Your task to perform on an android device: Open ESPN.com Image 0: 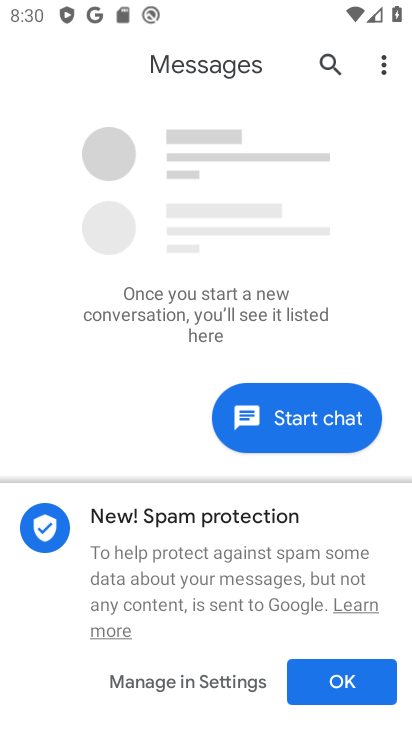
Step 0: press home button
Your task to perform on an android device: Open ESPN.com Image 1: 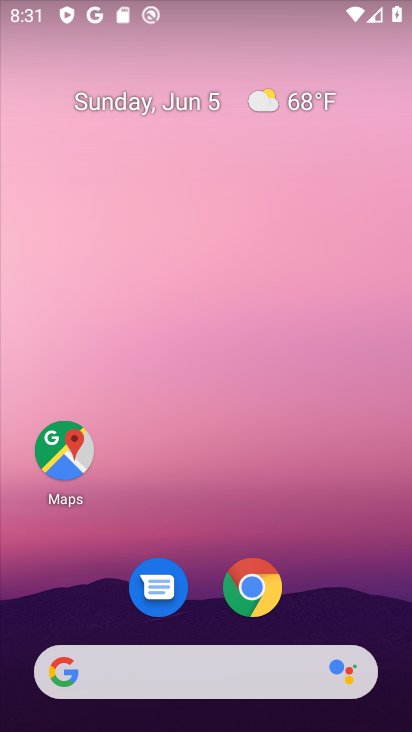
Step 1: click (257, 575)
Your task to perform on an android device: Open ESPN.com Image 2: 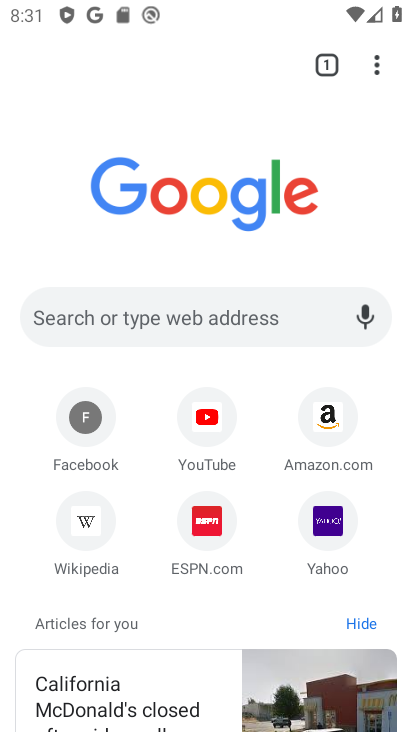
Step 2: click (247, 315)
Your task to perform on an android device: Open ESPN.com Image 3: 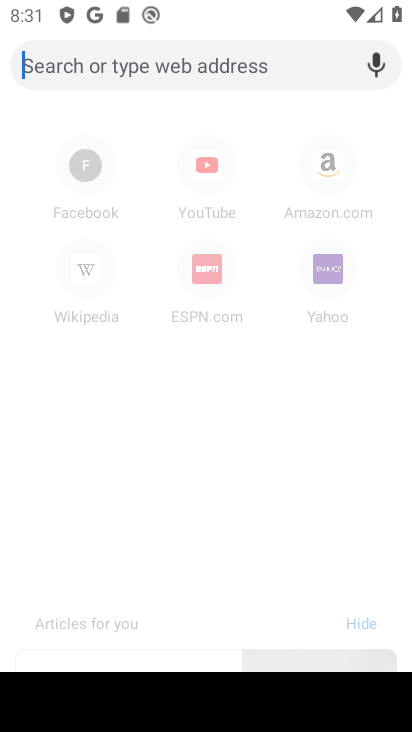
Step 3: type "espn.com"
Your task to perform on an android device: Open ESPN.com Image 4: 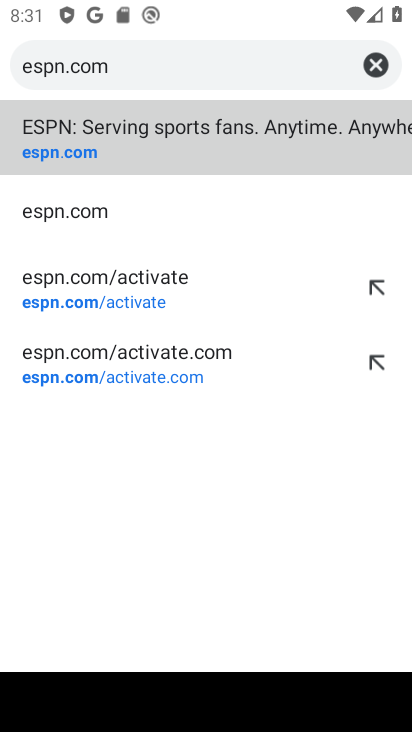
Step 4: click (312, 137)
Your task to perform on an android device: Open ESPN.com Image 5: 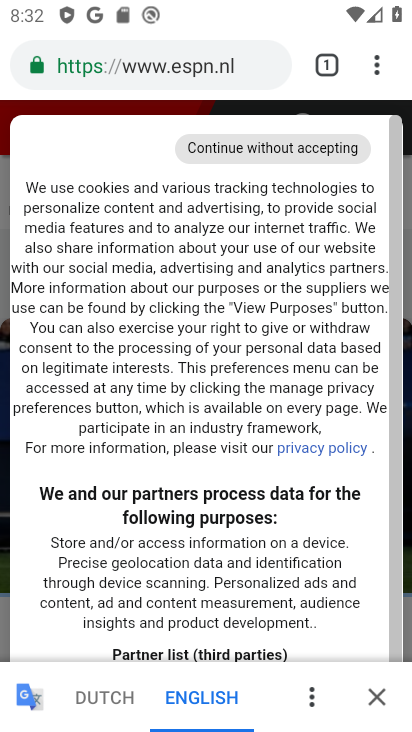
Step 5: task complete